Your task to perform on an android device: Go to eBay Image 0: 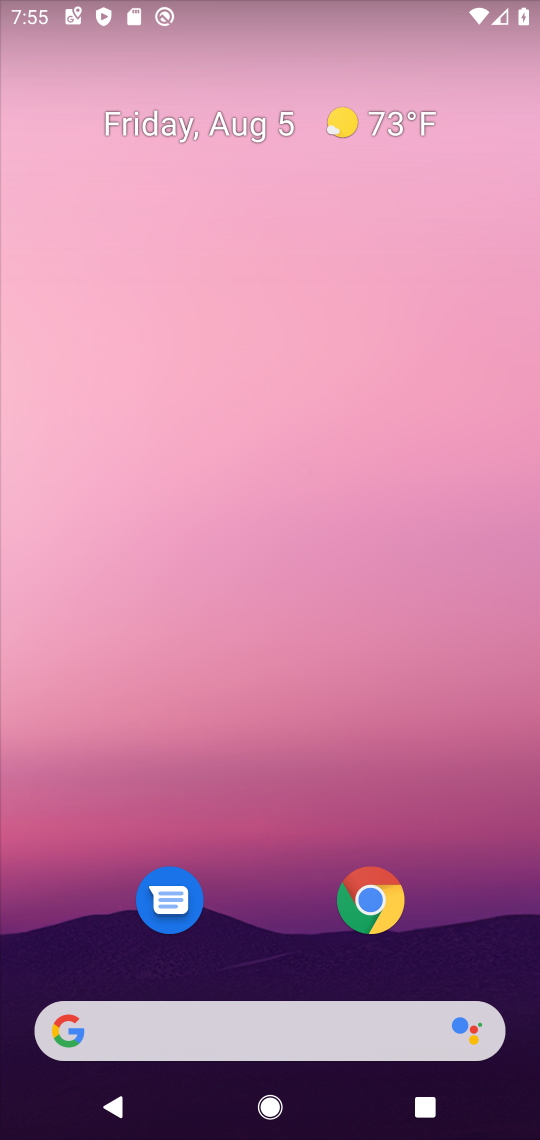
Step 0: drag from (297, 949) to (398, 329)
Your task to perform on an android device: Go to eBay Image 1: 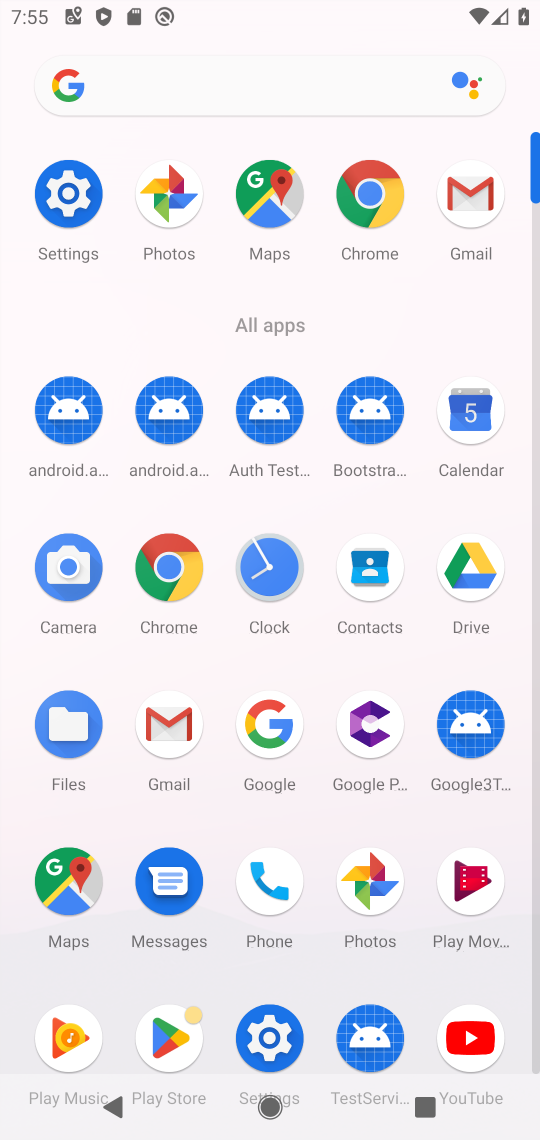
Step 1: click (296, 732)
Your task to perform on an android device: Go to eBay Image 2: 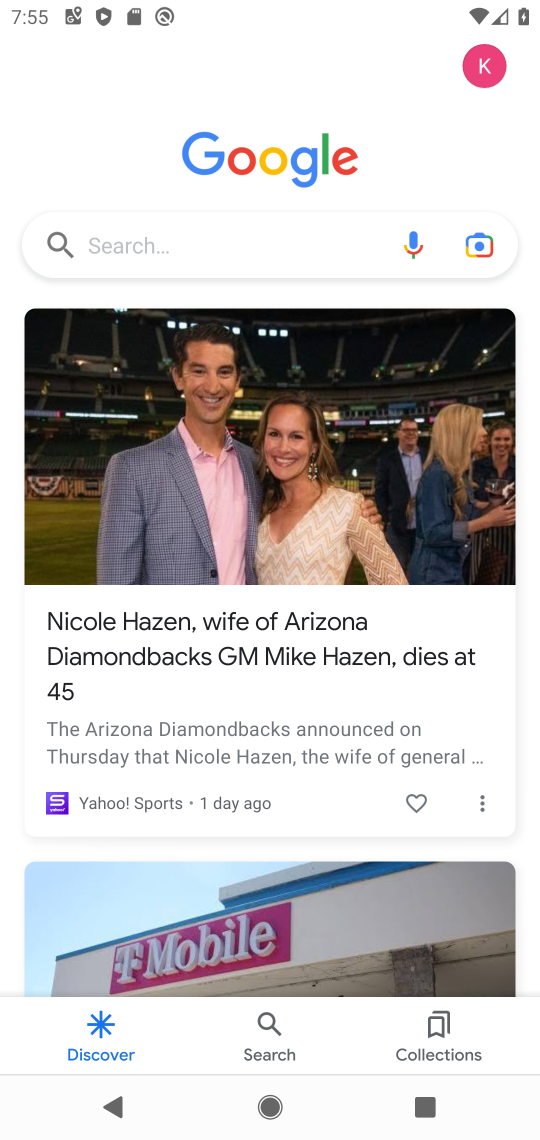
Step 2: click (268, 225)
Your task to perform on an android device: Go to eBay Image 3: 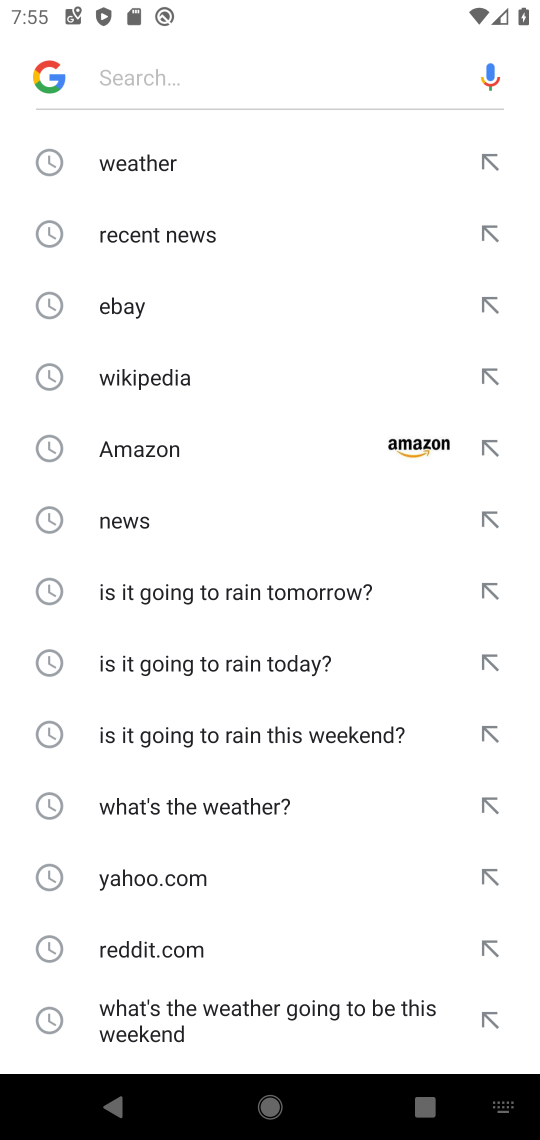
Step 3: click (181, 313)
Your task to perform on an android device: Go to eBay Image 4: 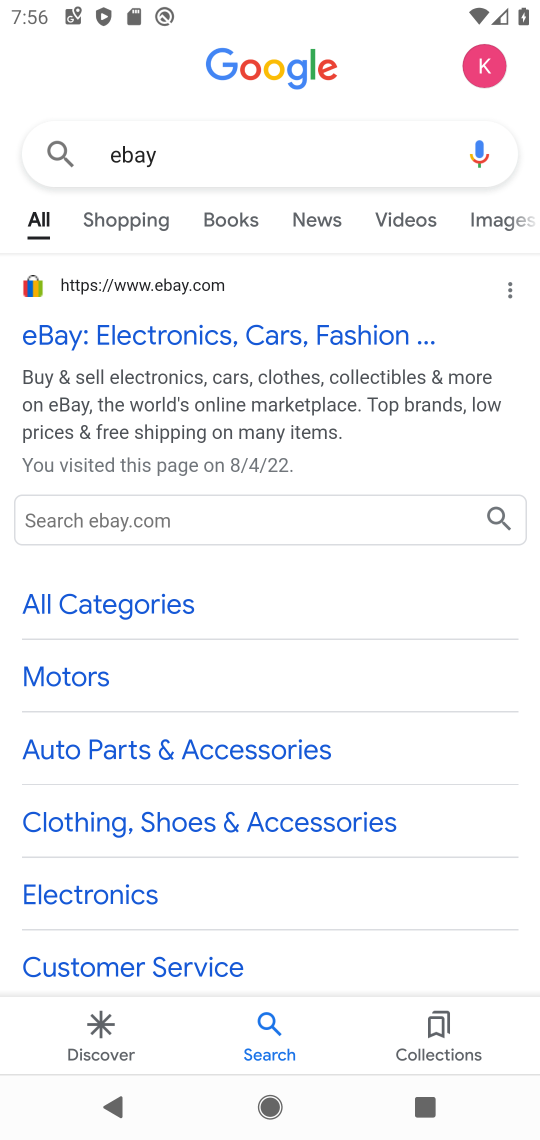
Step 4: click (279, 332)
Your task to perform on an android device: Go to eBay Image 5: 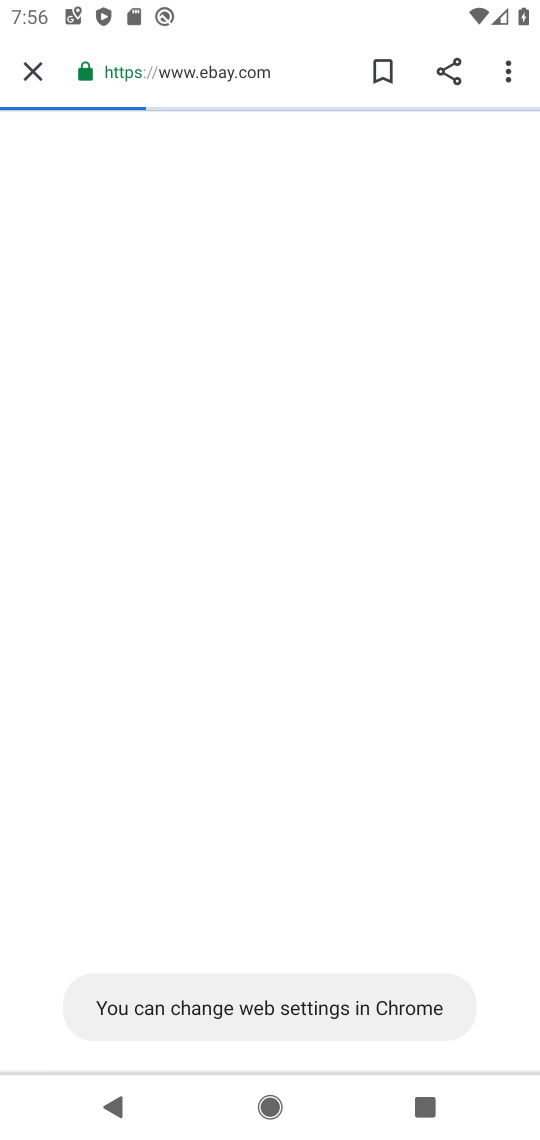
Step 5: task complete